Your task to perform on an android device: turn on priority inbox in the gmail app Image 0: 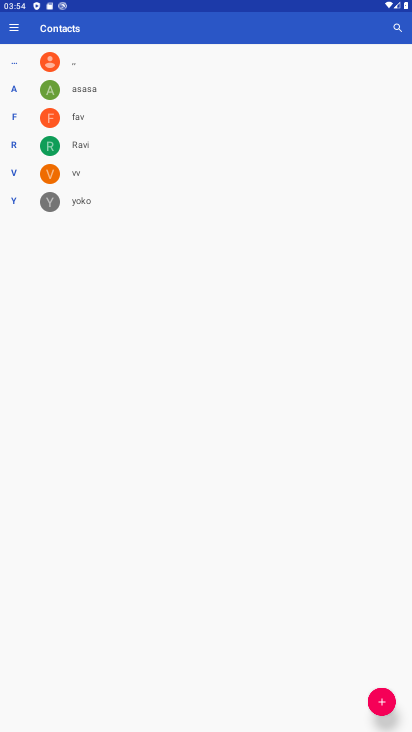
Step 0: press home button
Your task to perform on an android device: turn on priority inbox in the gmail app Image 1: 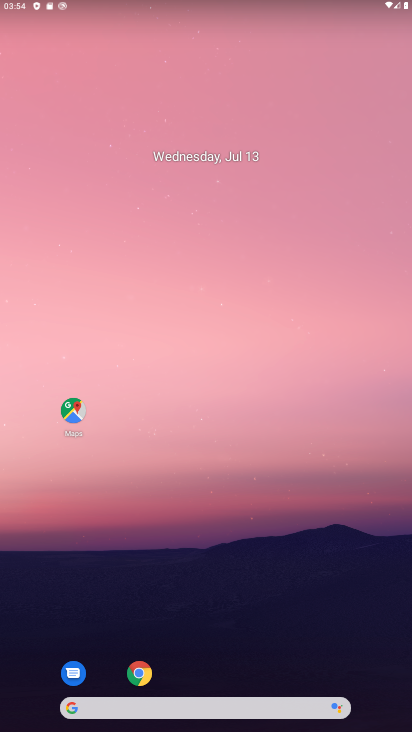
Step 1: drag from (249, 647) to (273, 44)
Your task to perform on an android device: turn on priority inbox in the gmail app Image 2: 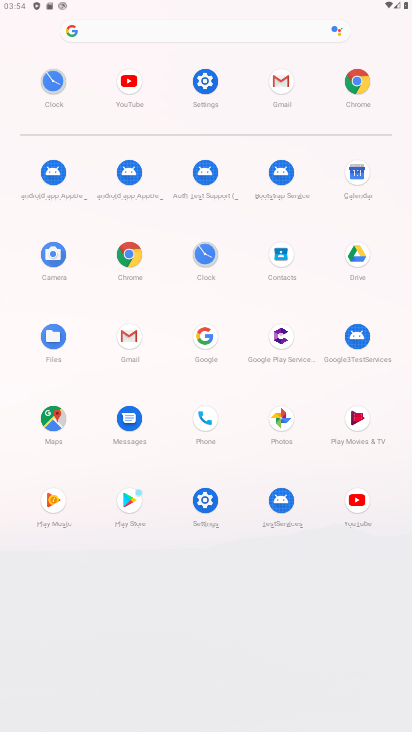
Step 2: click (124, 335)
Your task to perform on an android device: turn on priority inbox in the gmail app Image 3: 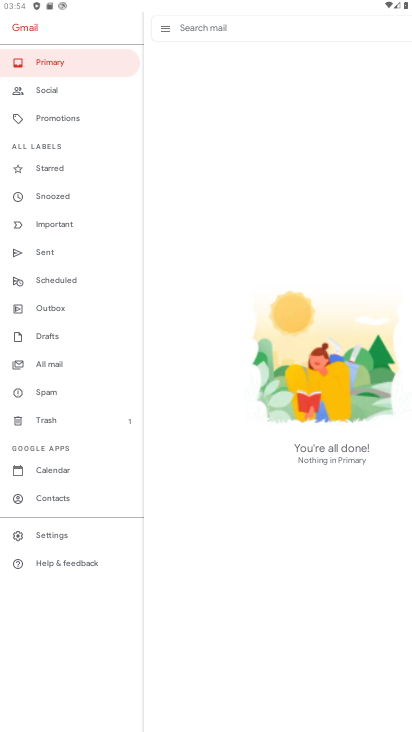
Step 3: click (62, 532)
Your task to perform on an android device: turn on priority inbox in the gmail app Image 4: 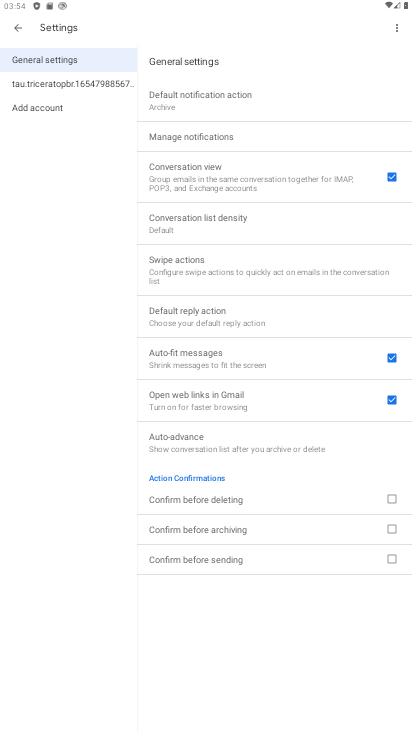
Step 4: click (108, 83)
Your task to perform on an android device: turn on priority inbox in the gmail app Image 5: 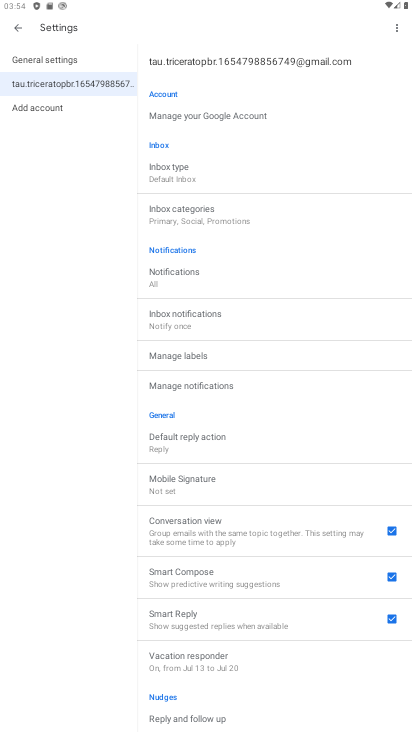
Step 5: click (160, 170)
Your task to perform on an android device: turn on priority inbox in the gmail app Image 6: 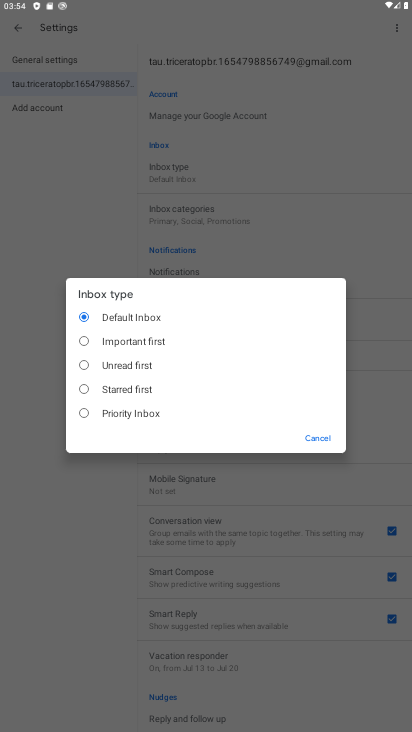
Step 6: click (134, 407)
Your task to perform on an android device: turn on priority inbox in the gmail app Image 7: 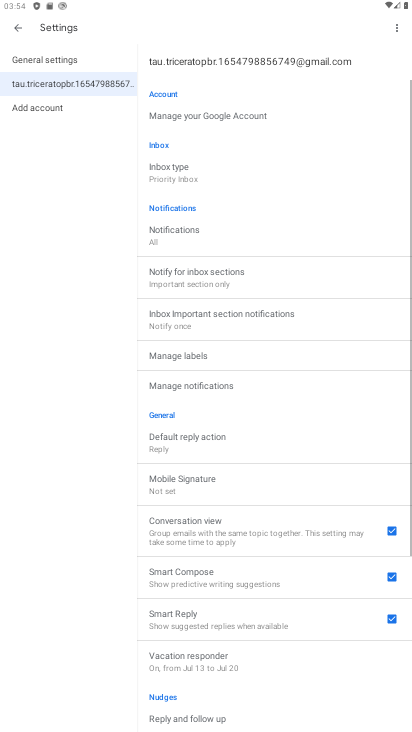
Step 7: task complete